Your task to perform on an android device: Open Android settings Image 0: 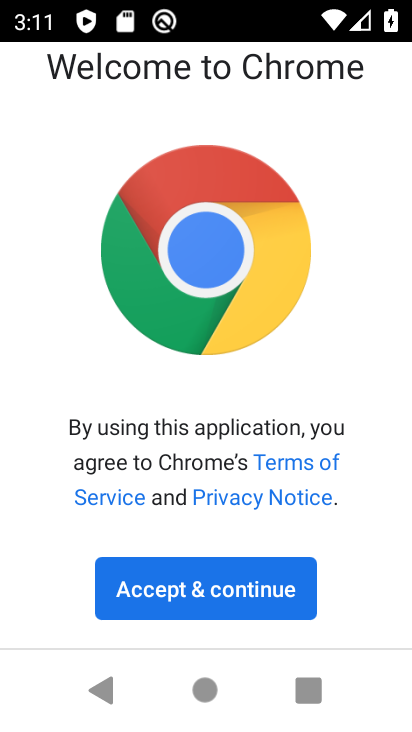
Step 0: press home button
Your task to perform on an android device: Open Android settings Image 1: 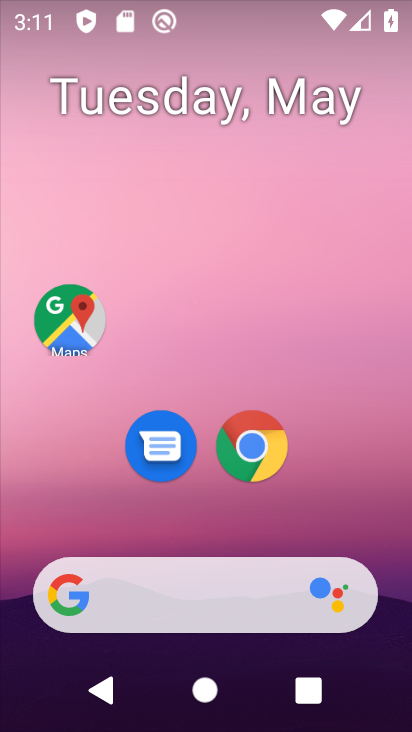
Step 1: drag from (213, 724) to (215, 134)
Your task to perform on an android device: Open Android settings Image 2: 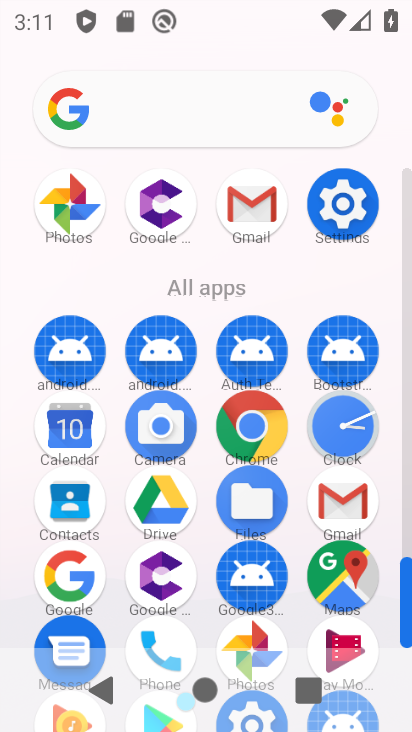
Step 2: click (350, 208)
Your task to perform on an android device: Open Android settings Image 3: 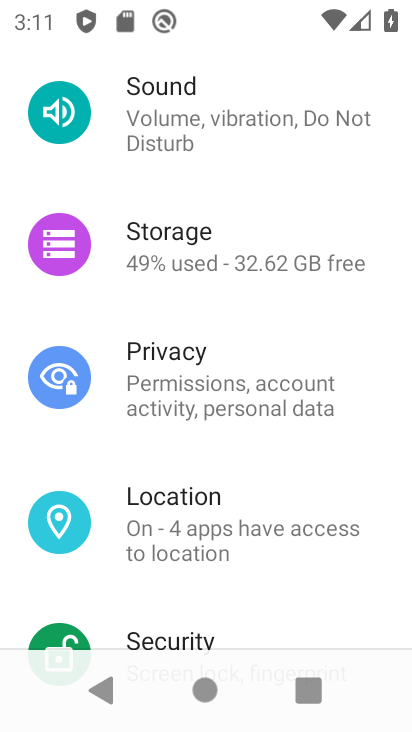
Step 3: task complete